Your task to perform on an android device: Clear the cart on ebay.com. Search for "logitech g933" on ebay.com, select the first entry, and add it to the cart. Image 0: 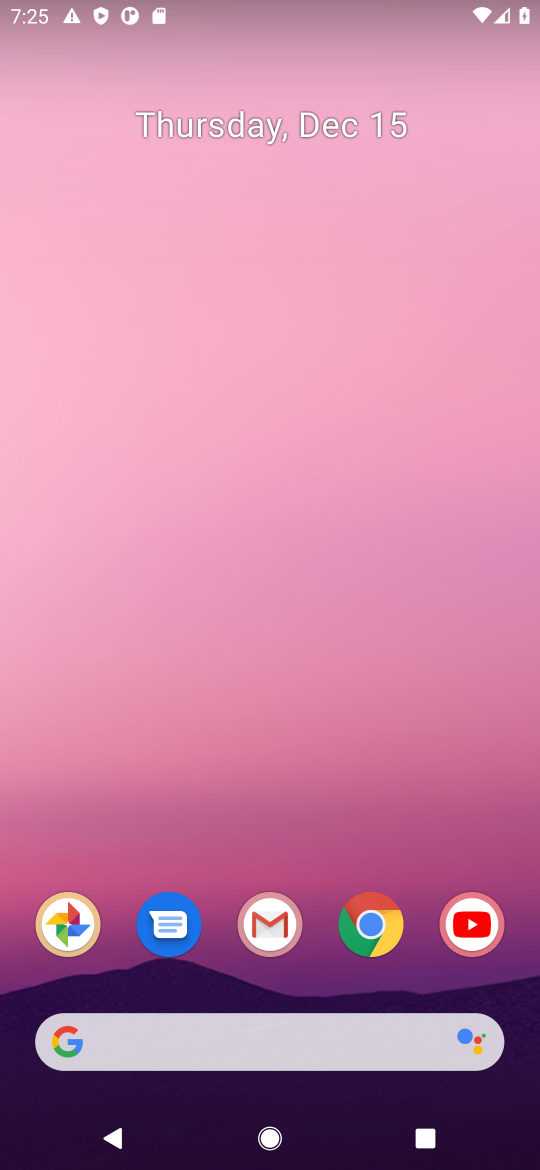
Step 0: click (373, 908)
Your task to perform on an android device: Clear the cart on ebay.com. Search for "logitech g933" on ebay.com, select the first entry, and add it to the cart. Image 1: 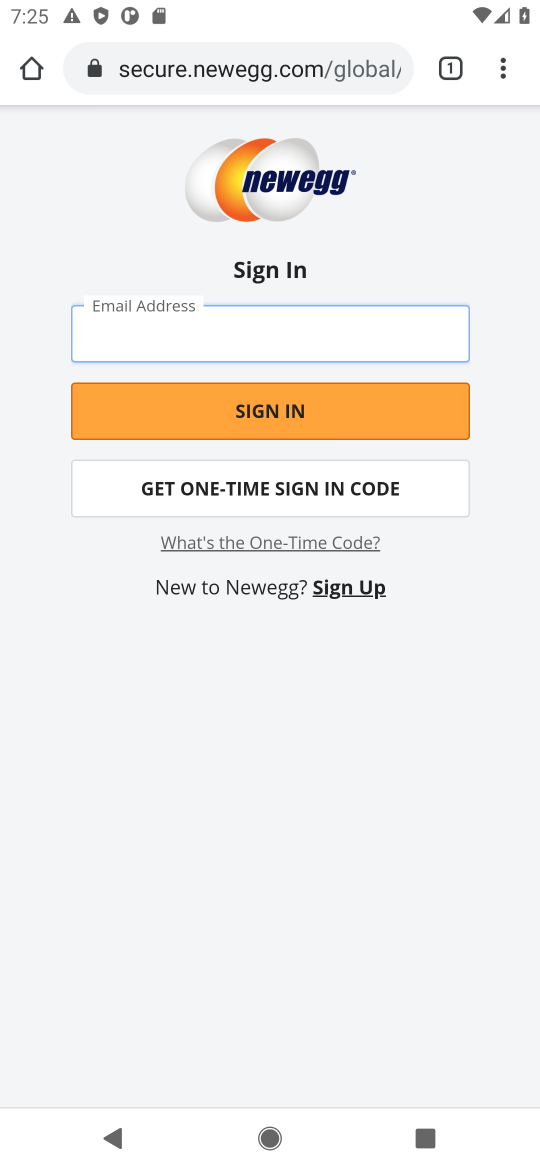
Step 1: click (284, 51)
Your task to perform on an android device: Clear the cart on ebay.com. Search for "logitech g933" on ebay.com, select the first entry, and add it to the cart. Image 2: 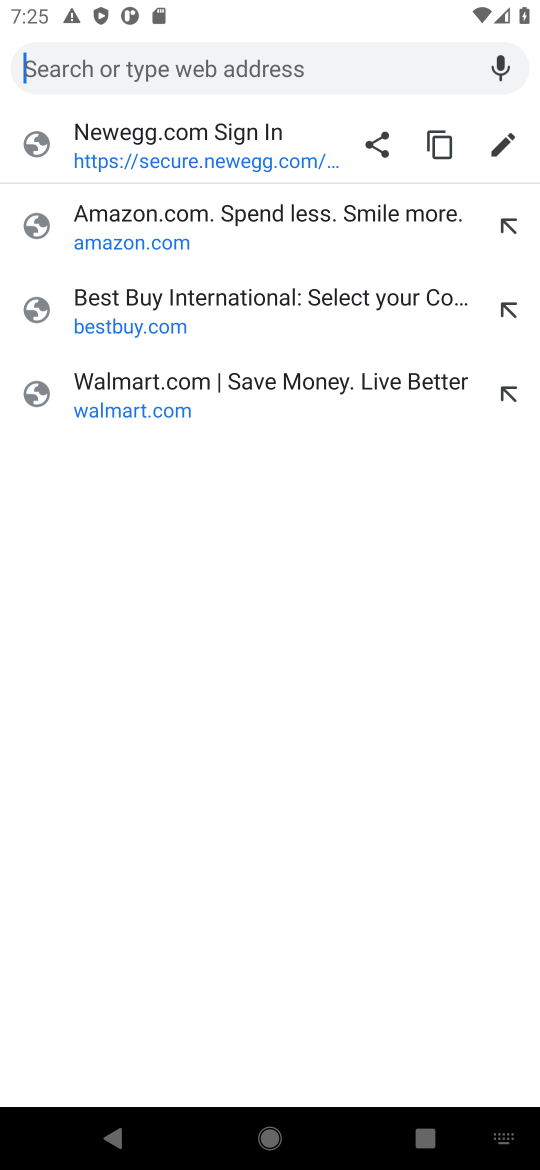
Step 2: type "ebay"
Your task to perform on an android device: Clear the cart on ebay.com. Search for "logitech g933" on ebay.com, select the first entry, and add it to the cart. Image 3: 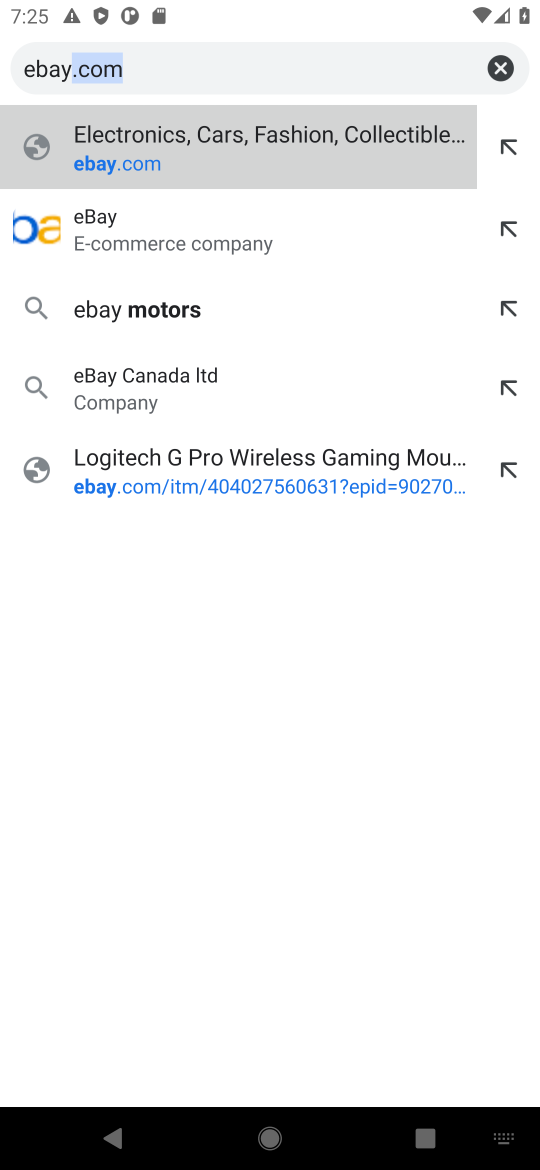
Step 3: click (277, 237)
Your task to perform on an android device: Clear the cart on ebay.com. Search for "logitech g933" on ebay.com, select the first entry, and add it to the cart. Image 4: 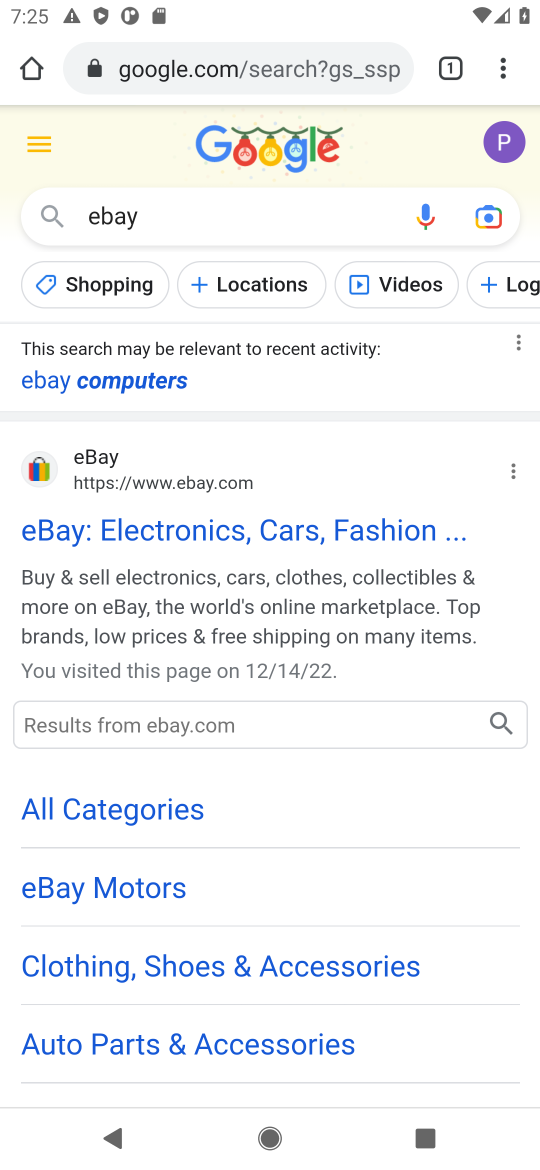
Step 4: click (306, 536)
Your task to perform on an android device: Clear the cart on ebay.com. Search for "logitech g933" on ebay.com, select the first entry, and add it to the cart. Image 5: 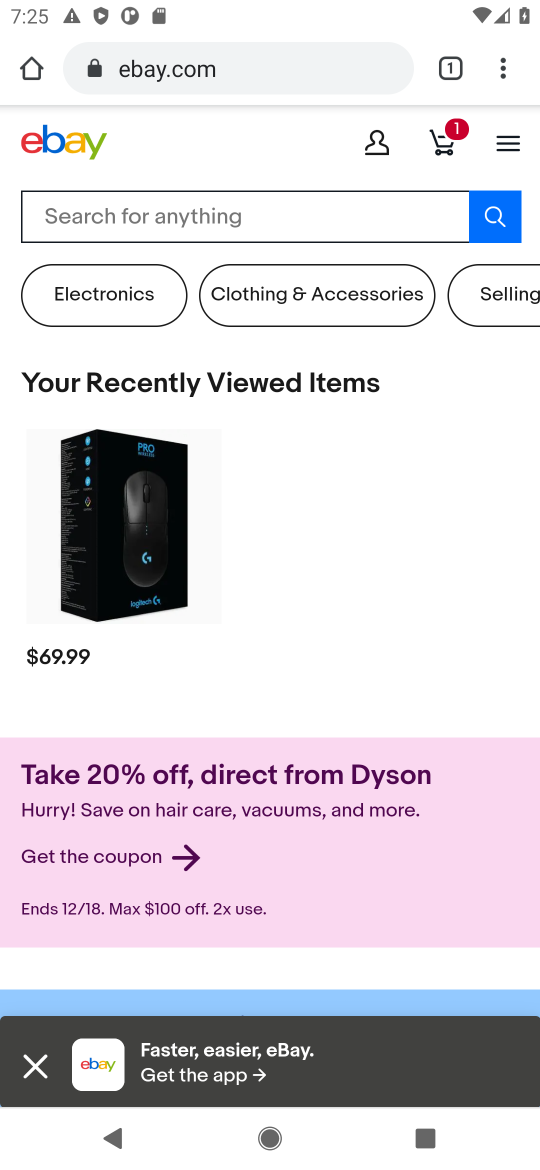
Step 5: click (431, 140)
Your task to perform on an android device: Clear the cart on ebay.com. Search for "logitech g933" on ebay.com, select the first entry, and add it to the cart. Image 6: 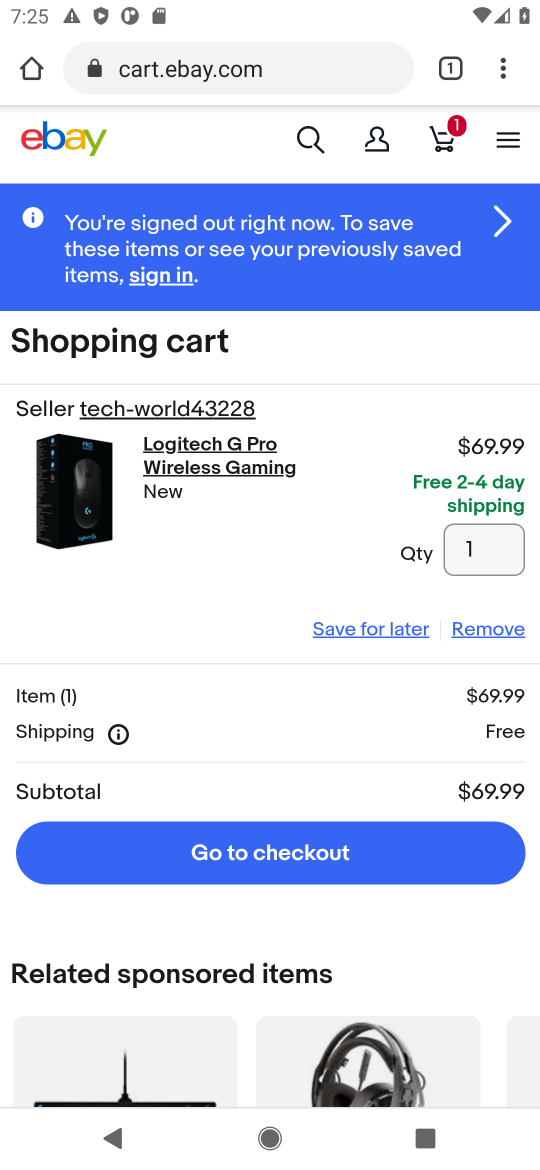
Step 6: click (473, 634)
Your task to perform on an android device: Clear the cart on ebay.com. Search for "logitech g933" on ebay.com, select the first entry, and add it to the cart. Image 7: 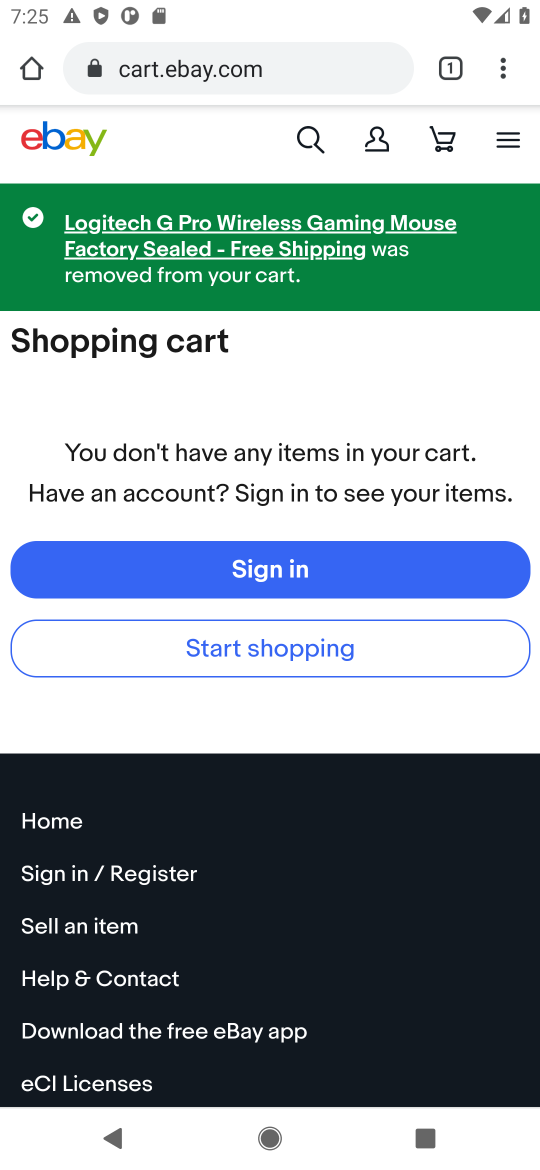
Step 7: click (327, 151)
Your task to perform on an android device: Clear the cart on ebay.com. Search for "logitech g933" on ebay.com, select the first entry, and add it to the cart. Image 8: 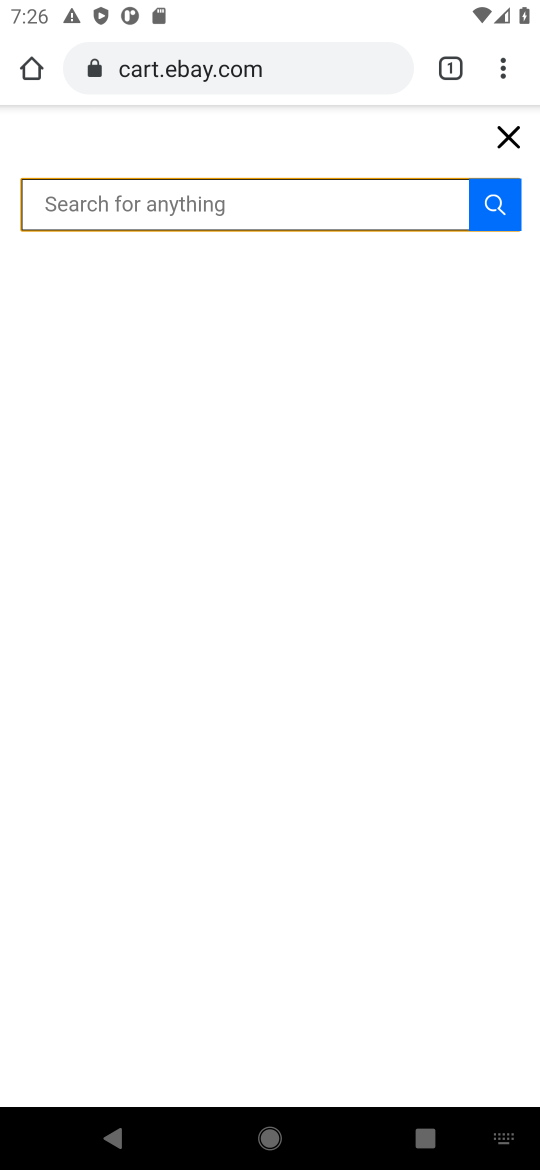
Step 8: type "logitech g933"
Your task to perform on an android device: Clear the cart on ebay.com. Search for "logitech g933" on ebay.com, select the first entry, and add it to the cart. Image 9: 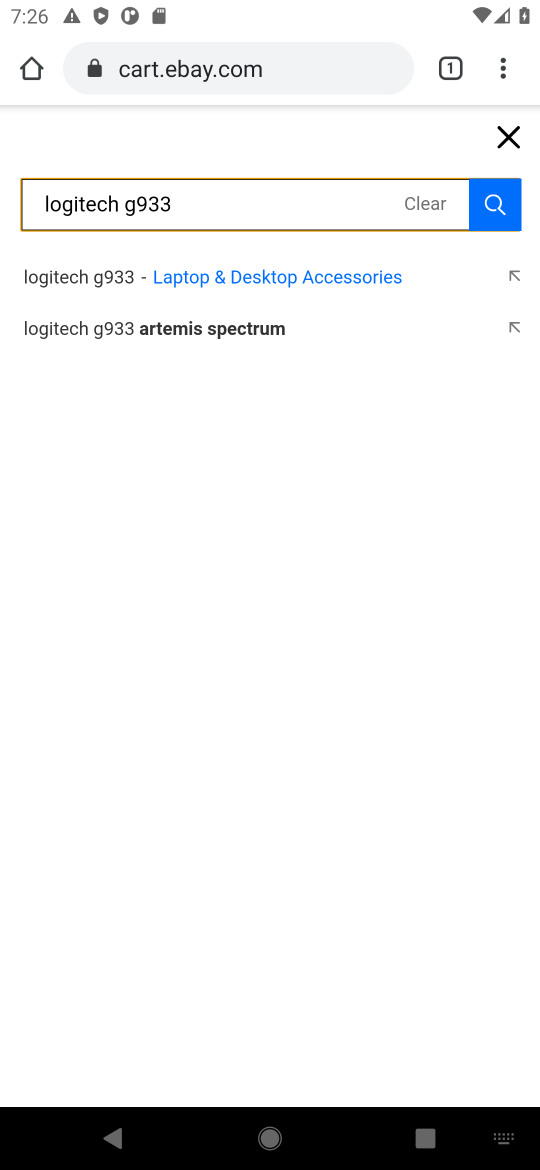
Step 9: click (468, 199)
Your task to perform on an android device: Clear the cart on ebay.com. Search for "logitech g933" on ebay.com, select the first entry, and add it to the cart. Image 10: 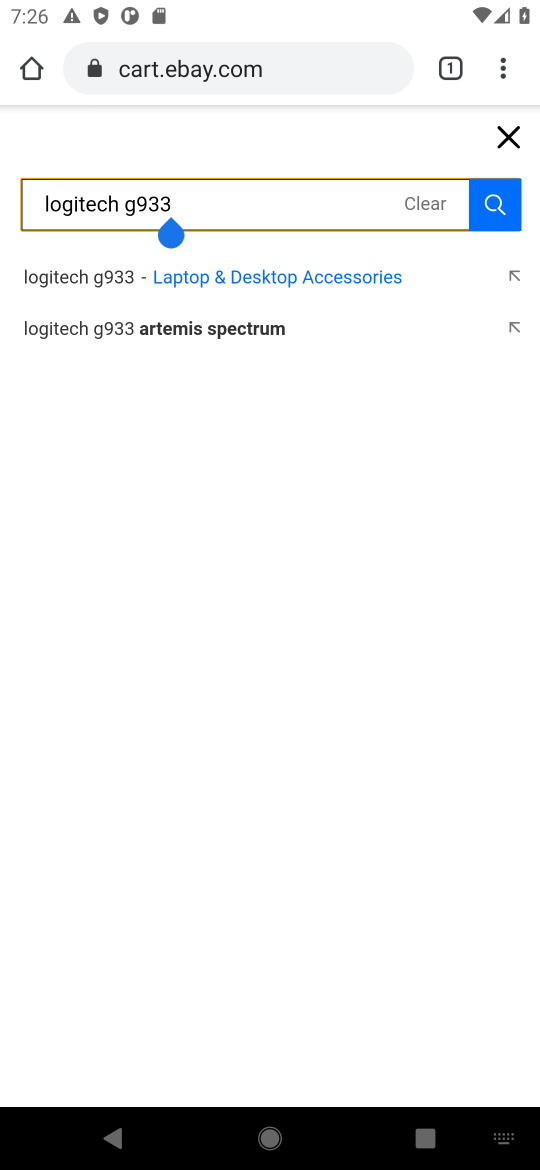
Step 10: click (472, 199)
Your task to perform on an android device: Clear the cart on ebay.com. Search for "logitech g933" on ebay.com, select the first entry, and add it to the cart. Image 11: 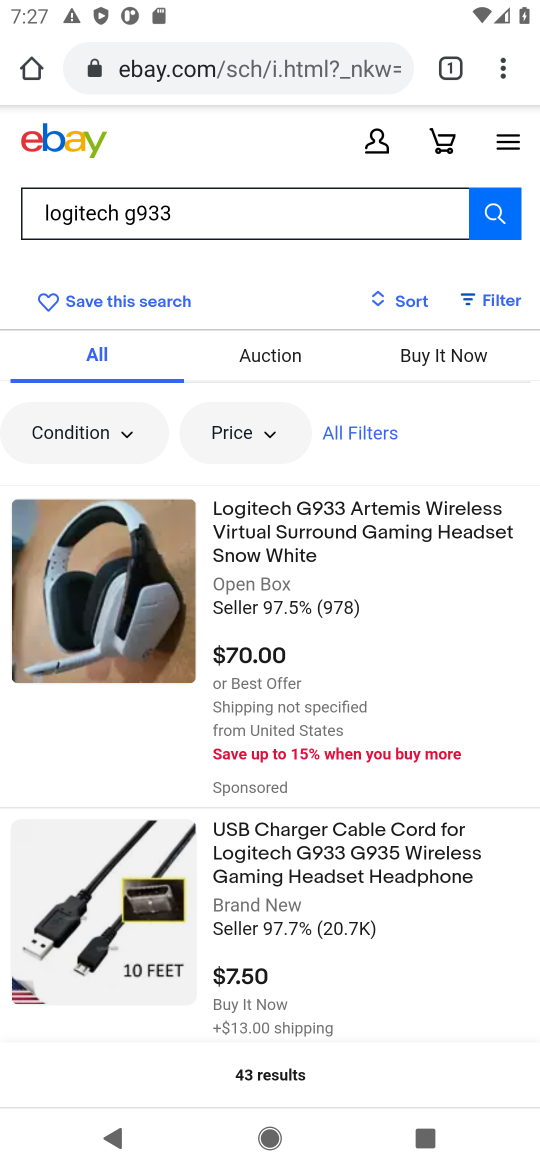
Step 11: click (362, 539)
Your task to perform on an android device: Clear the cart on ebay.com. Search for "logitech g933" on ebay.com, select the first entry, and add it to the cart. Image 12: 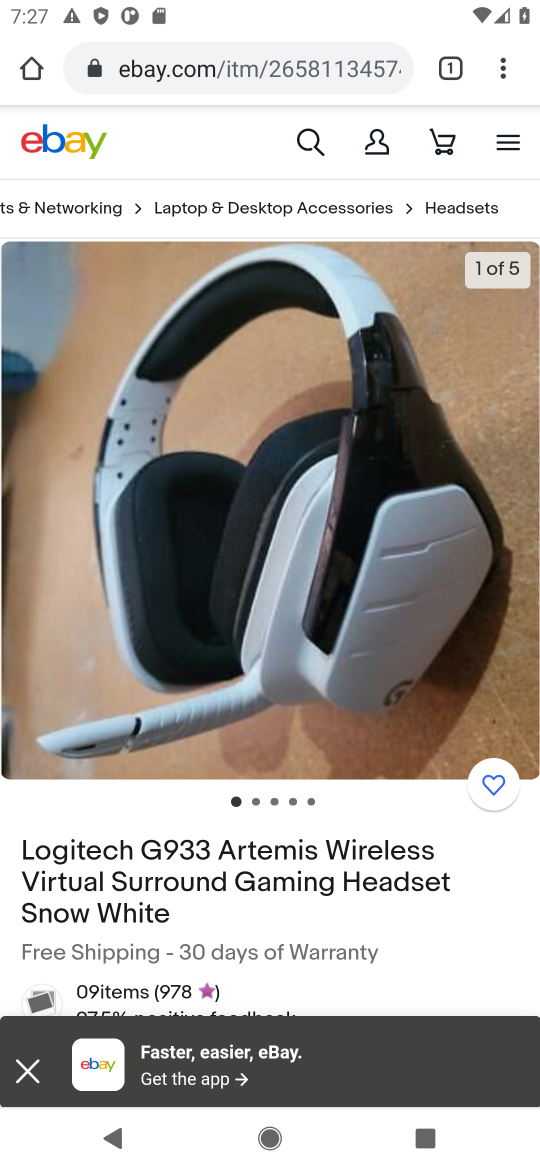
Step 12: drag from (348, 987) to (366, 715)
Your task to perform on an android device: Clear the cart on ebay.com. Search for "logitech g933" on ebay.com, select the first entry, and add it to the cart. Image 13: 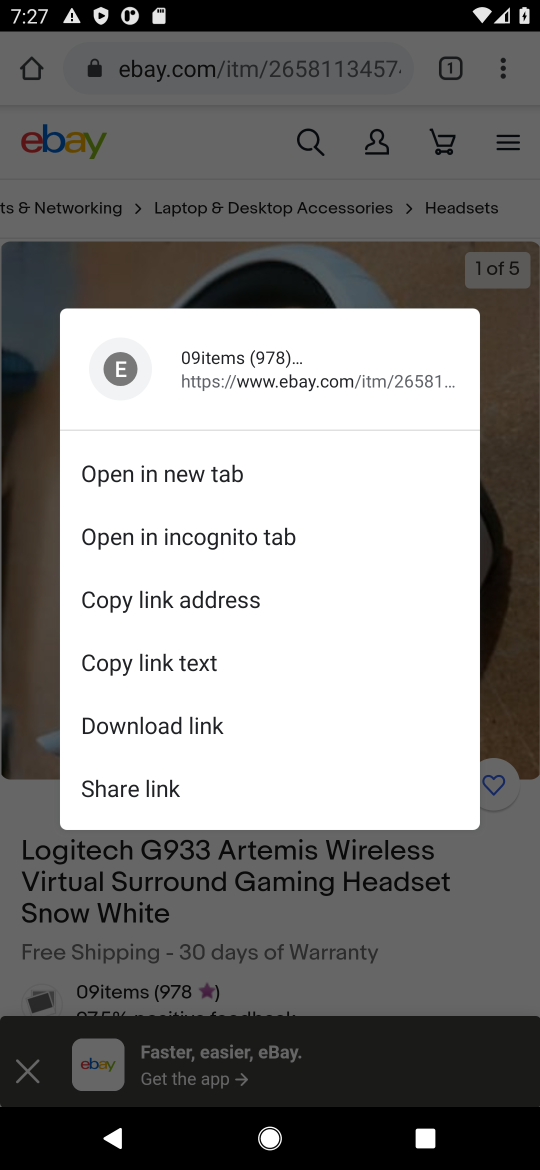
Step 13: click (339, 919)
Your task to perform on an android device: Clear the cart on ebay.com. Search for "logitech g933" on ebay.com, select the first entry, and add it to the cart. Image 14: 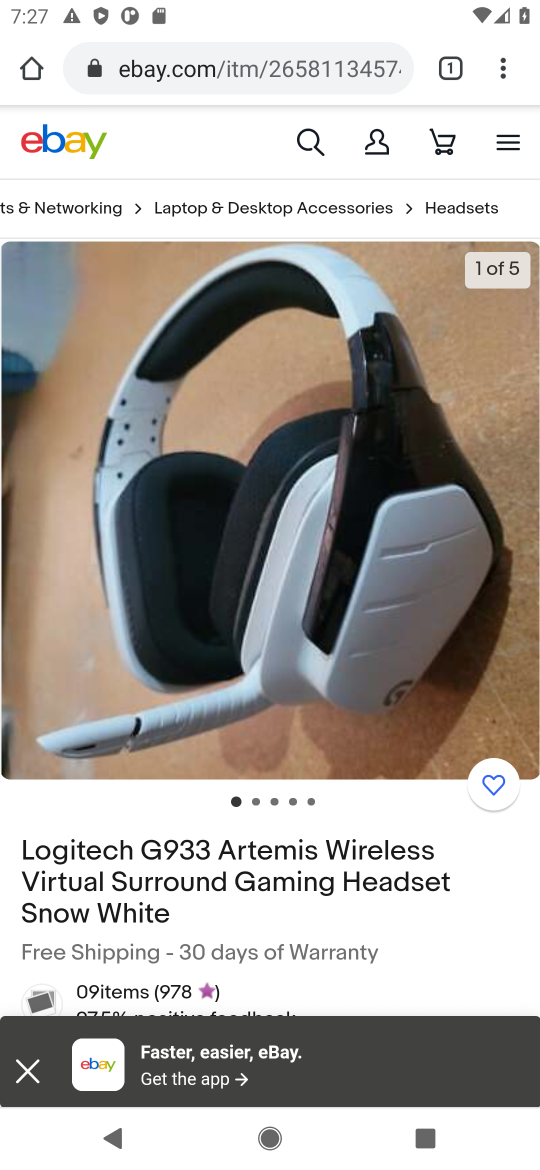
Step 14: drag from (339, 919) to (464, 563)
Your task to perform on an android device: Clear the cart on ebay.com. Search for "logitech g933" on ebay.com, select the first entry, and add it to the cart. Image 15: 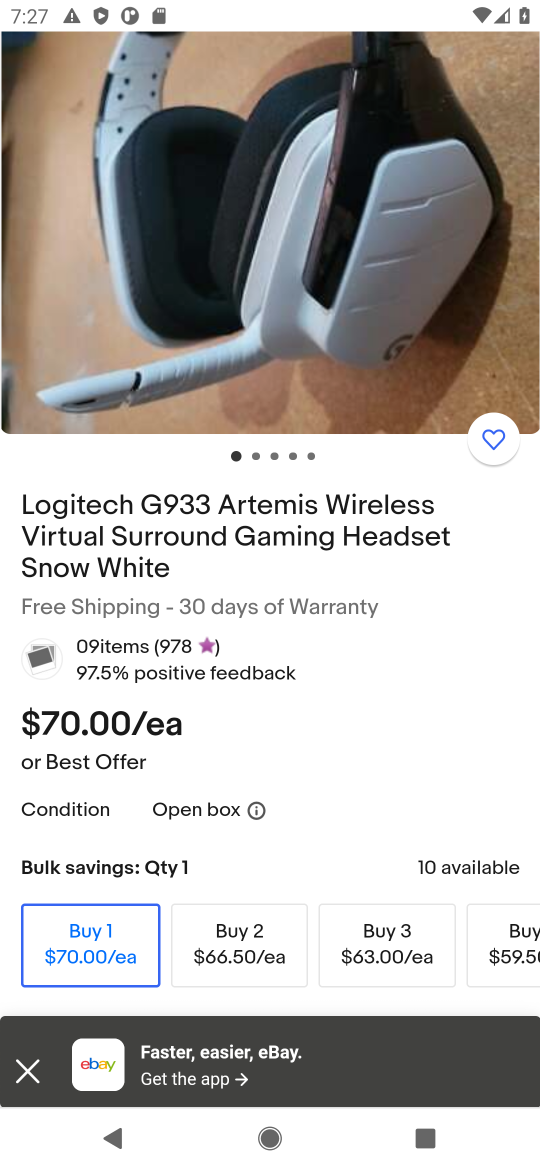
Step 15: drag from (356, 817) to (371, 409)
Your task to perform on an android device: Clear the cart on ebay.com. Search for "logitech g933" on ebay.com, select the first entry, and add it to the cart. Image 16: 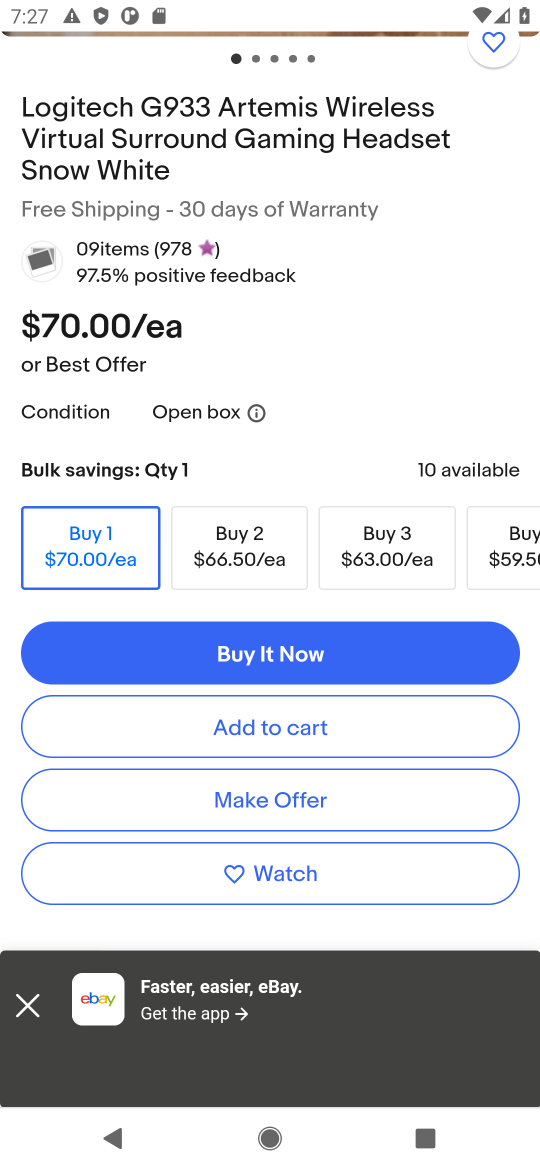
Step 16: click (299, 741)
Your task to perform on an android device: Clear the cart on ebay.com. Search for "logitech g933" on ebay.com, select the first entry, and add it to the cart. Image 17: 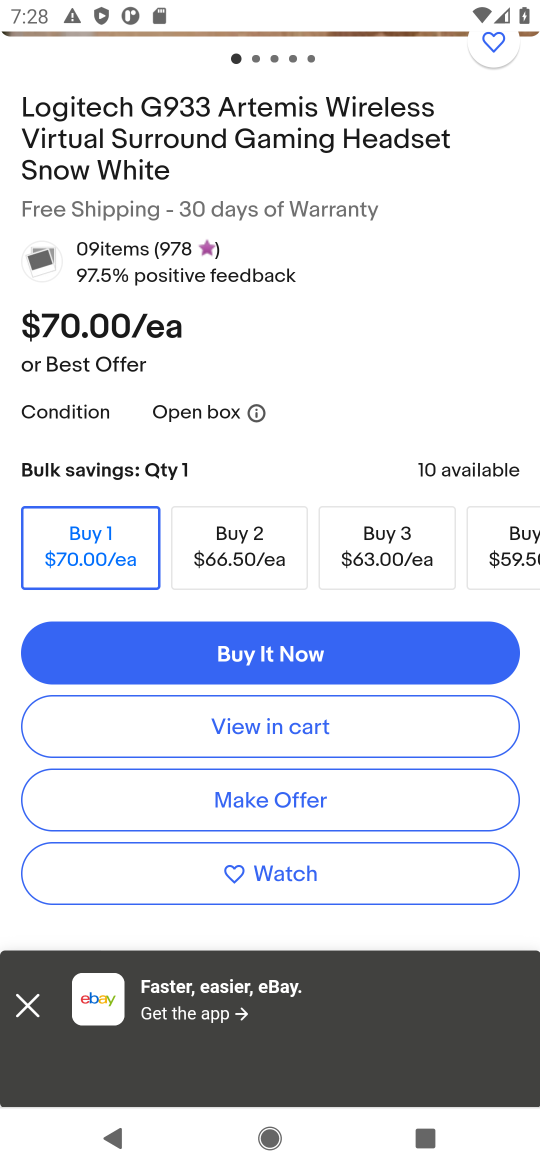
Step 17: task complete